Your task to perform on an android device: Go to settings Image 0: 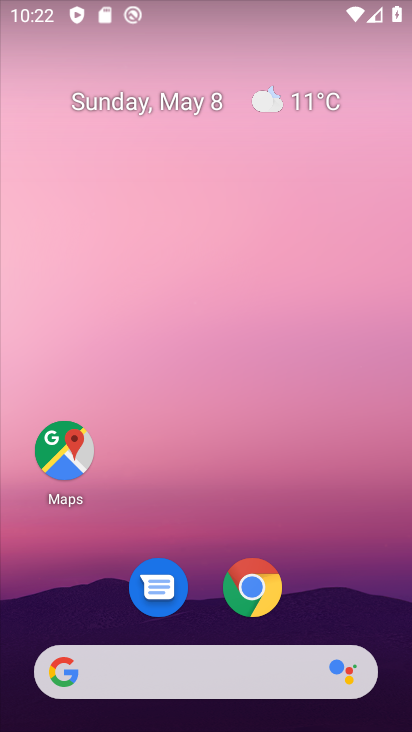
Step 0: drag from (181, 657) to (214, 47)
Your task to perform on an android device: Go to settings Image 1: 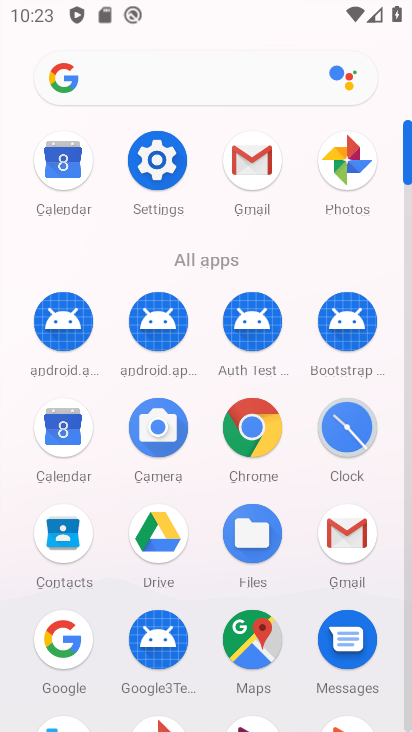
Step 1: click (147, 156)
Your task to perform on an android device: Go to settings Image 2: 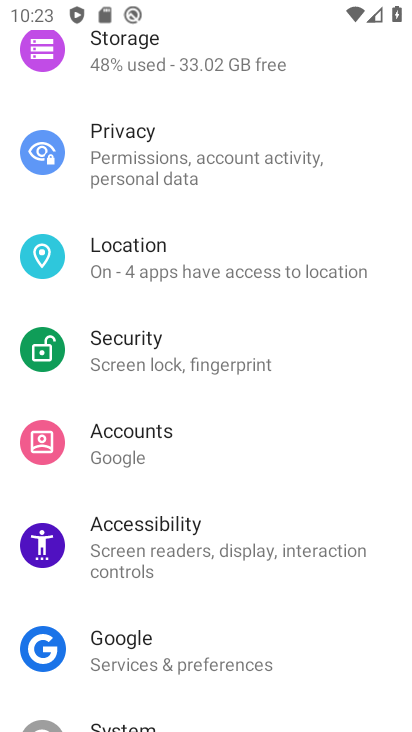
Step 2: task complete